Your task to perform on an android device: change alarm snooze length Image 0: 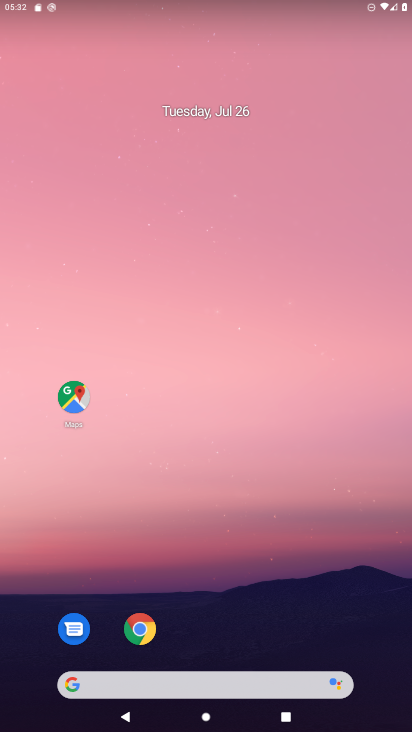
Step 0: drag from (182, 649) to (188, 0)
Your task to perform on an android device: change alarm snooze length Image 1: 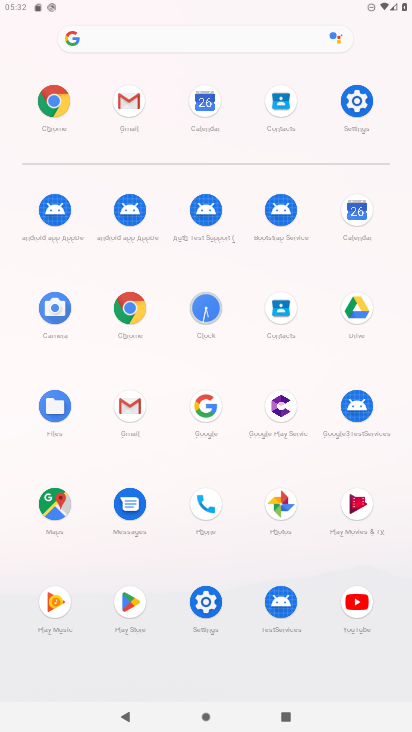
Step 1: click (209, 303)
Your task to perform on an android device: change alarm snooze length Image 2: 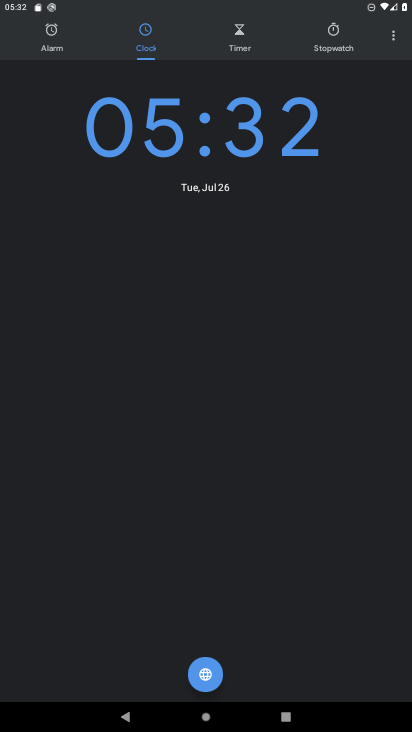
Step 2: click (393, 34)
Your task to perform on an android device: change alarm snooze length Image 3: 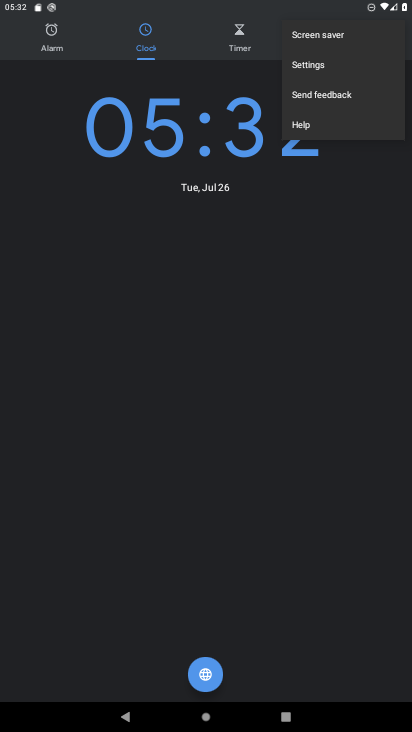
Step 3: click (321, 68)
Your task to perform on an android device: change alarm snooze length Image 4: 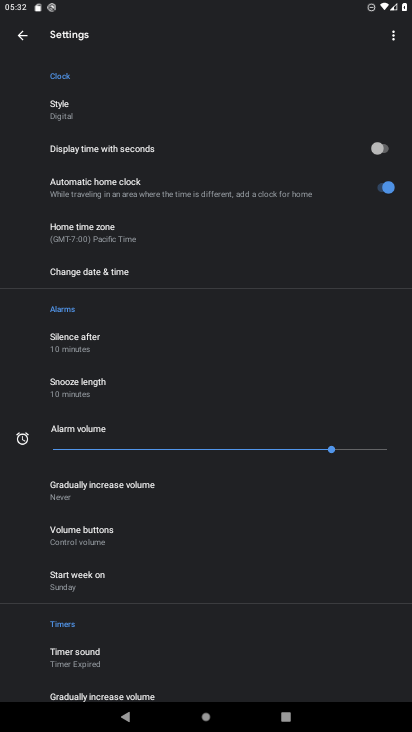
Step 4: drag from (126, 544) to (156, 186)
Your task to perform on an android device: change alarm snooze length Image 5: 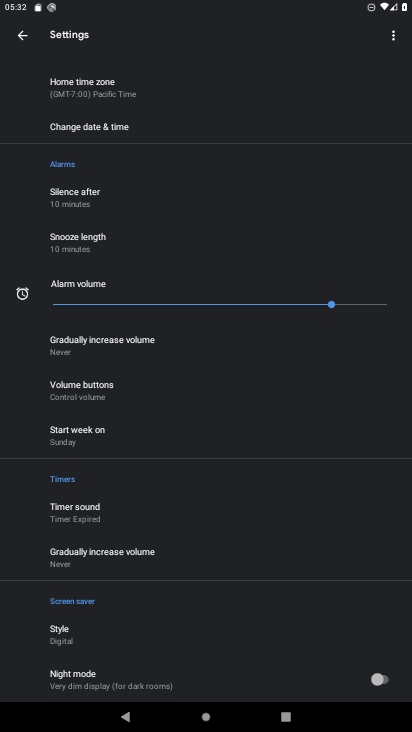
Step 5: click (90, 259)
Your task to perform on an android device: change alarm snooze length Image 6: 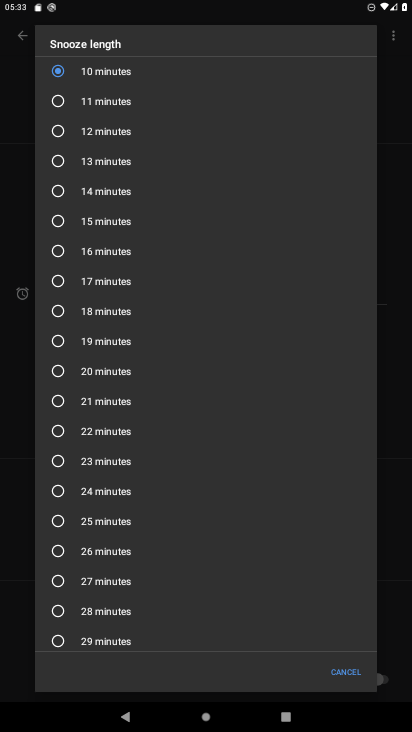
Step 6: click (58, 335)
Your task to perform on an android device: change alarm snooze length Image 7: 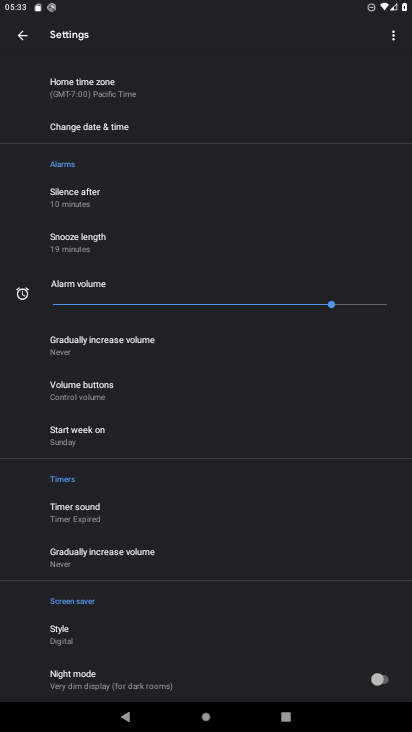
Step 7: task complete